Your task to perform on an android device: Open accessibility settings Image 0: 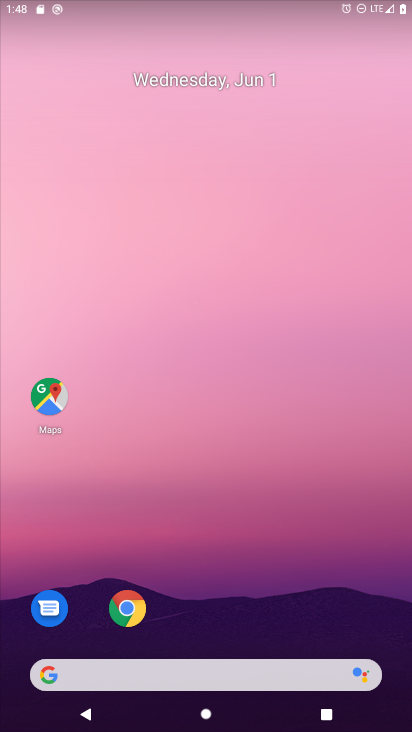
Step 0: drag from (196, 475) to (196, 112)
Your task to perform on an android device: Open accessibility settings Image 1: 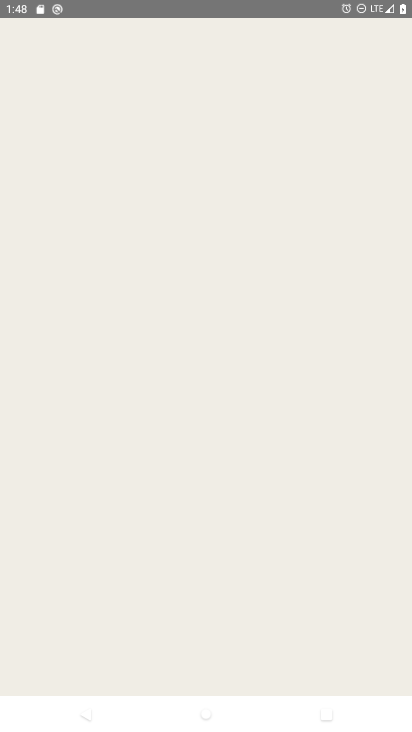
Step 1: press home button
Your task to perform on an android device: Open accessibility settings Image 2: 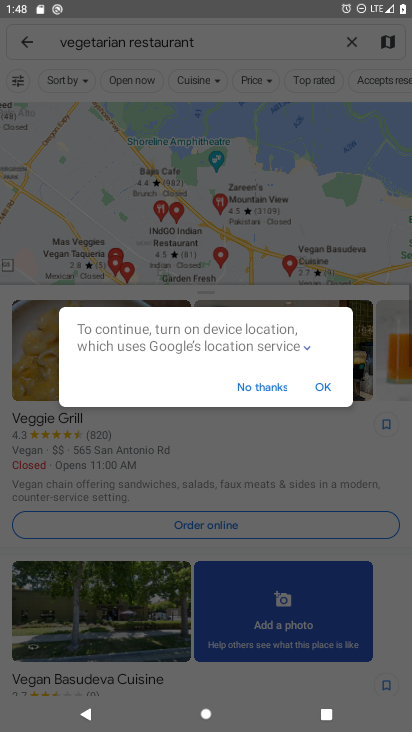
Step 2: drag from (184, 638) to (224, 98)
Your task to perform on an android device: Open accessibility settings Image 3: 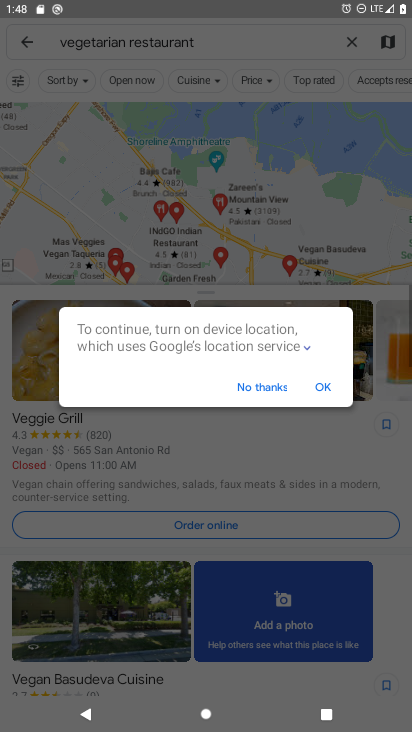
Step 3: press home button
Your task to perform on an android device: Open accessibility settings Image 4: 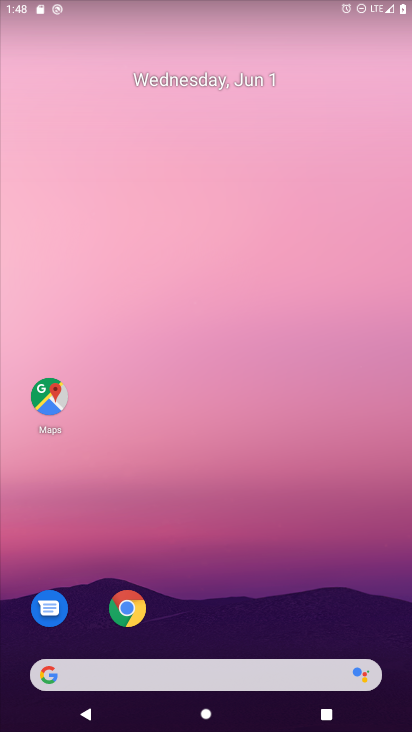
Step 4: drag from (201, 604) to (148, 180)
Your task to perform on an android device: Open accessibility settings Image 5: 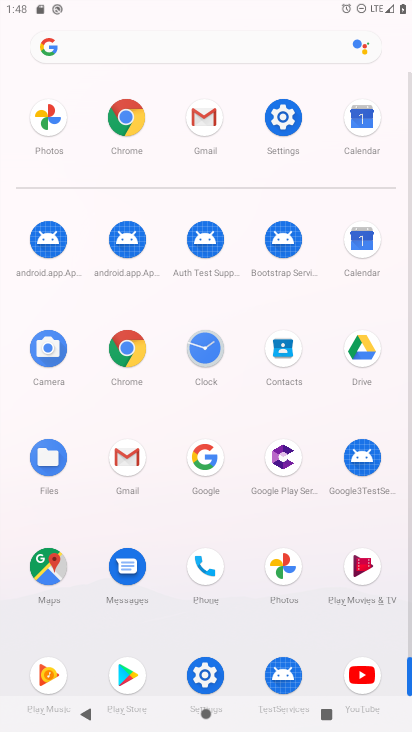
Step 5: click (285, 121)
Your task to perform on an android device: Open accessibility settings Image 6: 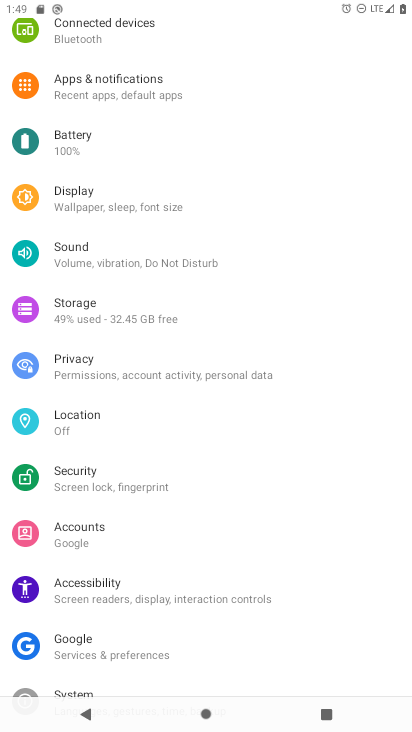
Step 6: click (134, 599)
Your task to perform on an android device: Open accessibility settings Image 7: 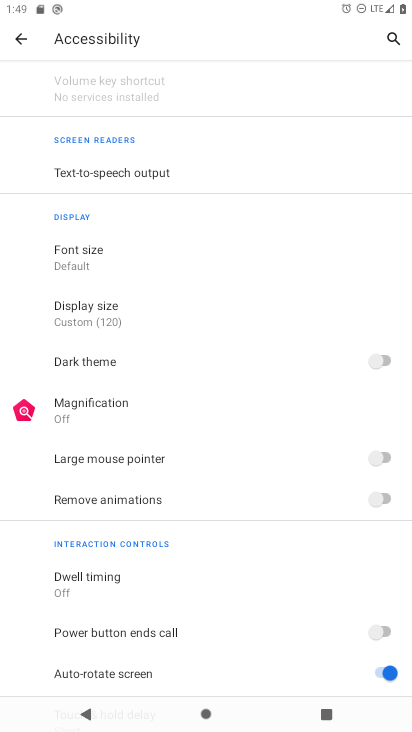
Step 7: task complete